Your task to perform on an android device: Is it going to rain tomorrow? Image 0: 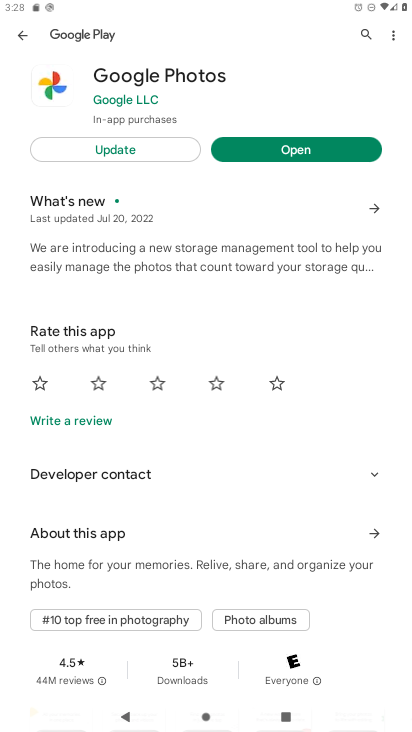
Step 0: press home button
Your task to perform on an android device: Is it going to rain tomorrow? Image 1: 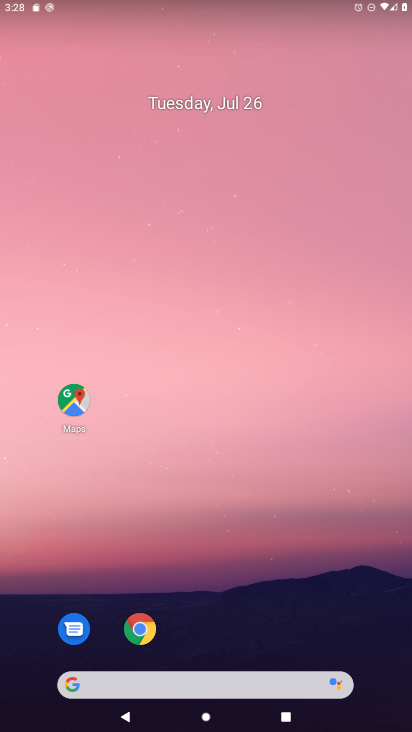
Step 1: drag from (204, 619) to (200, 188)
Your task to perform on an android device: Is it going to rain tomorrow? Image 2: 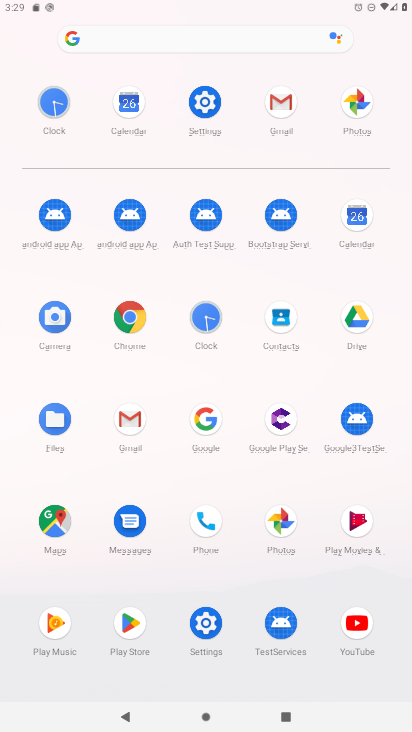
Step 2: click (206, 436)
Your task to perform on an android device: Is it going to rain tomorrow? Image 3: 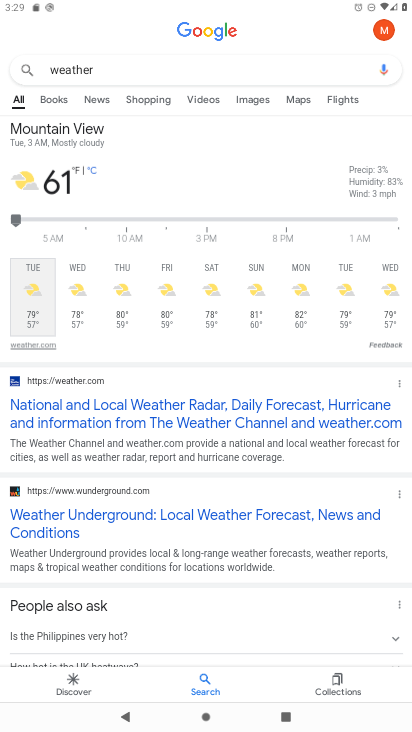
Step 3: task complete